Your task to perform on an android device: Add jbl charge 4 to the cart on amazon Image 0: 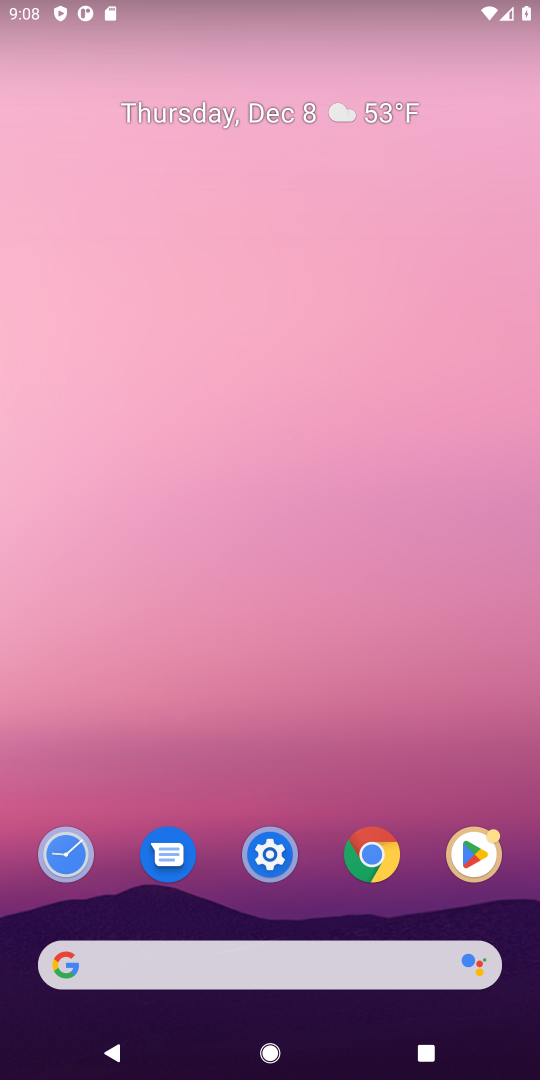
Step 0: click (95, 965)
Your task to perform on an android device: Add jbl charge 4 to the cart on amazon Image 1: 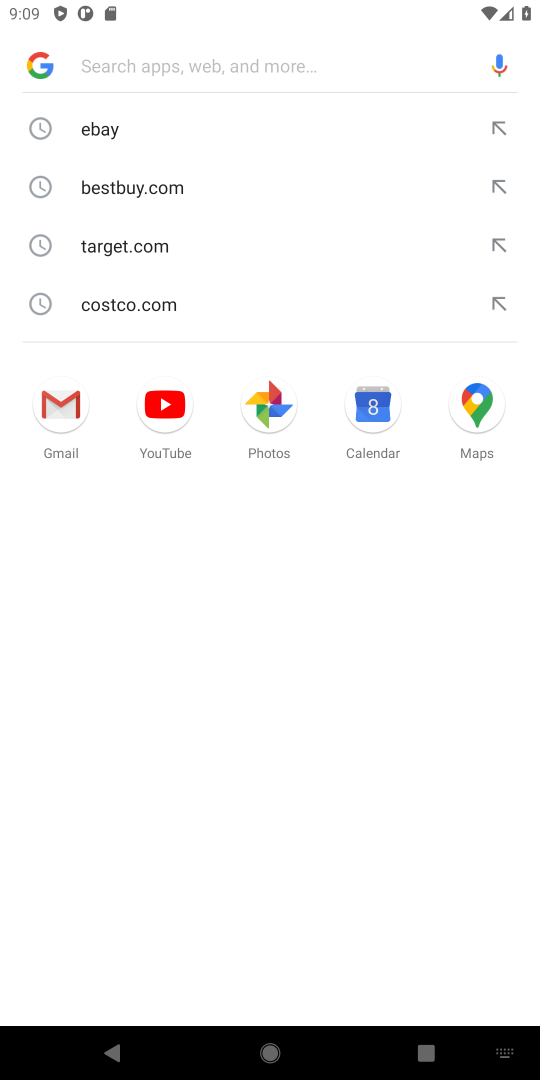
Step 1: type "amazon"
Your task to perform on an android device: Add jbl charge 4 to the cart on amazon Image 2: 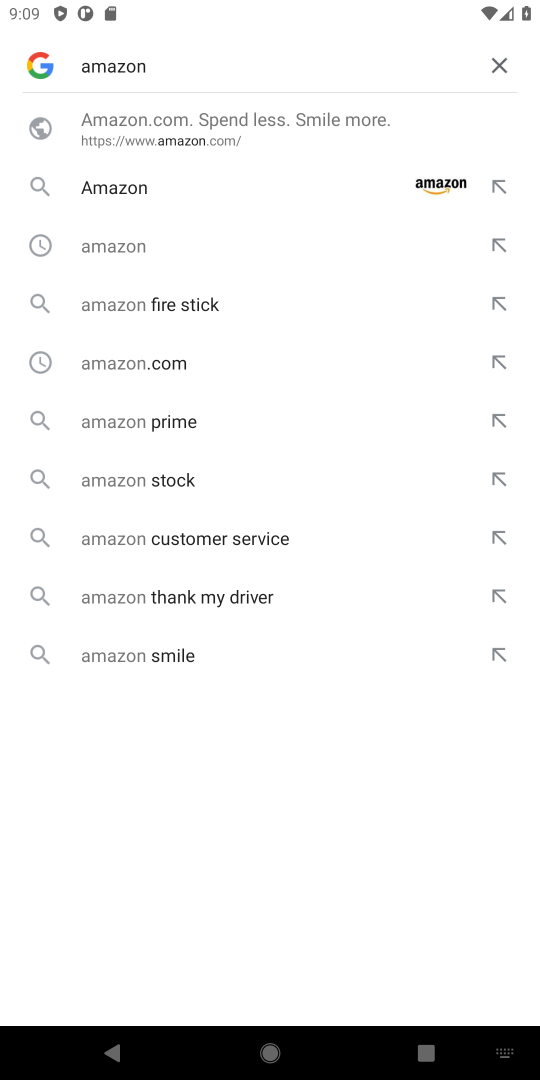
Step 2: press enter
Your task to perform on an android device: Add jbl charge 4 to the cart on amazon Image 3: 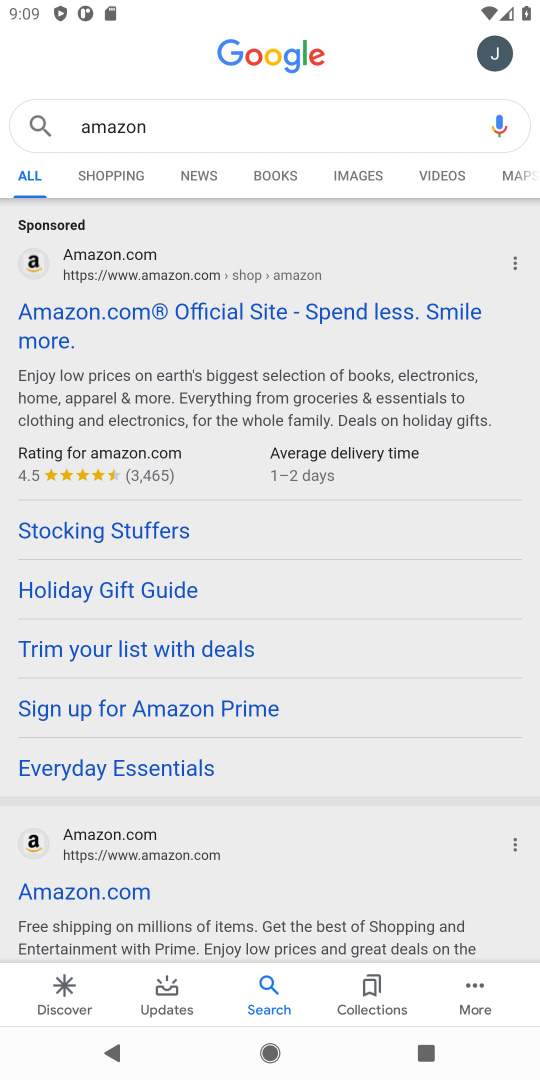
Step 3: click (165, 302)
Your task to perform on an android device: Add jbl charge 4 to the cart on amazon Image 4: 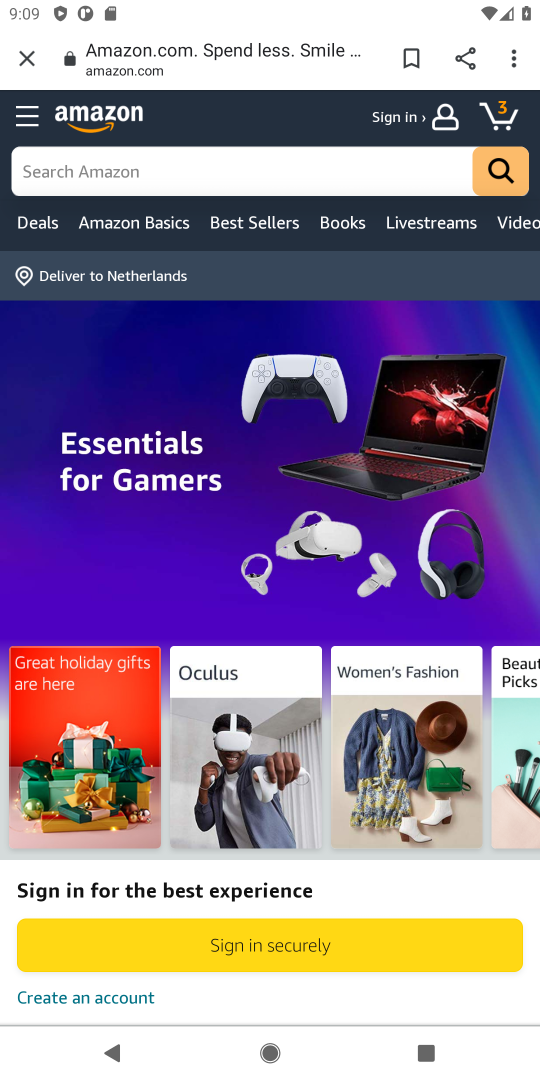
Step 4: type "jbl charge 4"
Your task to perform on an android device: Add jbl charge 4 to the cart on amazon Image 5: 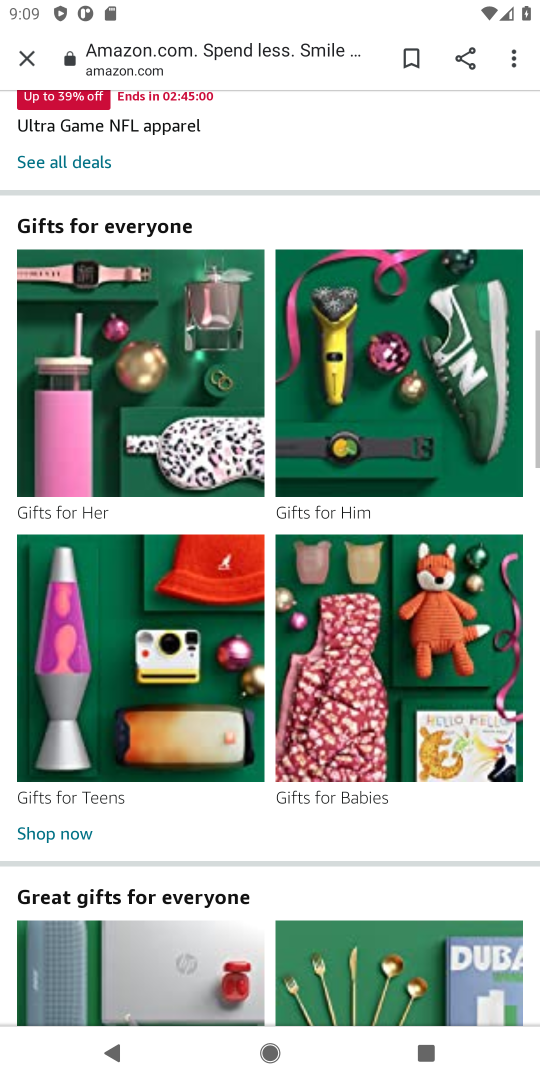
Step 5: press enter
Your task to perform on an android device: Add jbl charge 4 to the cart on amazon Image 6: 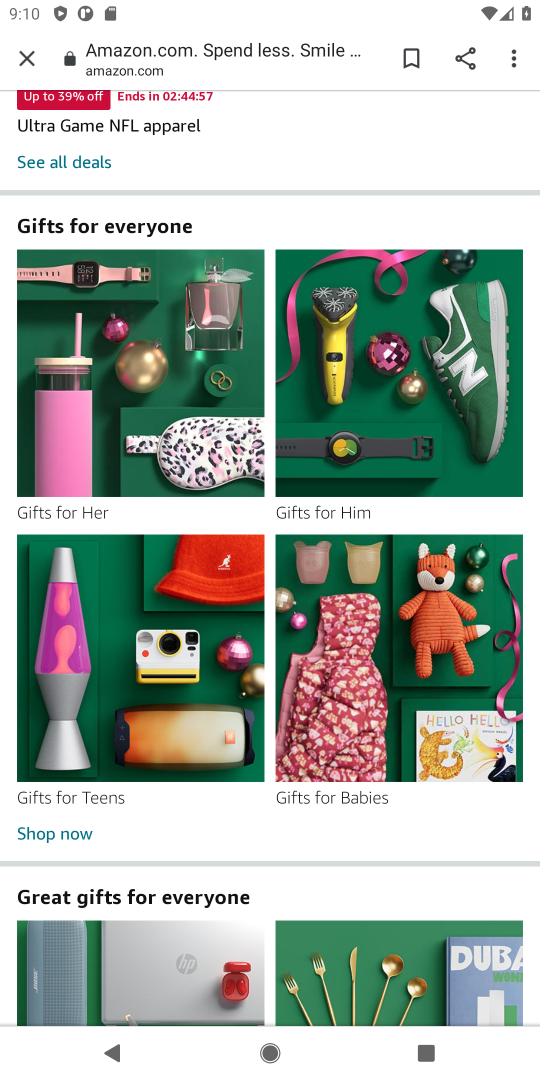
Step 6: drag from (377, 175) to (336, 879)
Your task to perform on an android device: Add jbl charge 4 to the cart on amazon Image 7: 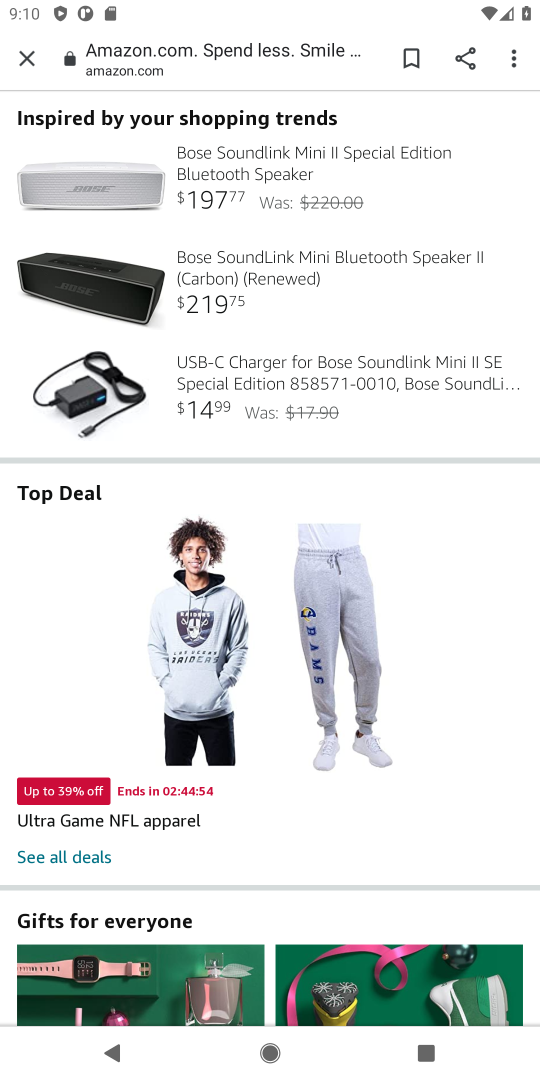
Step 7: drag from (356, 269) to (281, 923)
Your task to perform on an android device: Add jbl charge 4 to the cart on amazon Image 8: 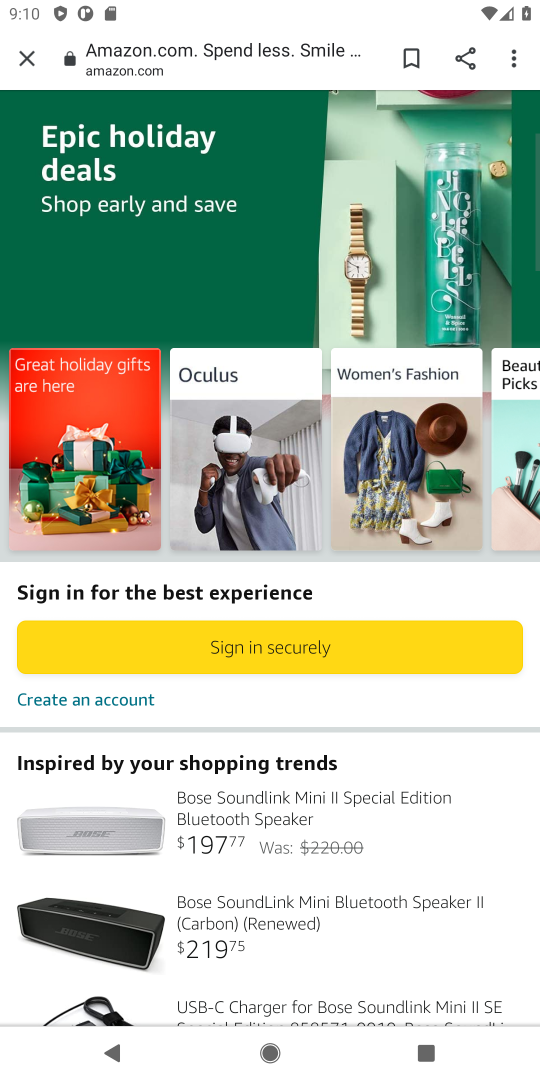
Step 8: drag from (281, 191) to (231, 834)
Your task to perform on an android device: Add jbl charge 4 to the cart on amazon Image 9: 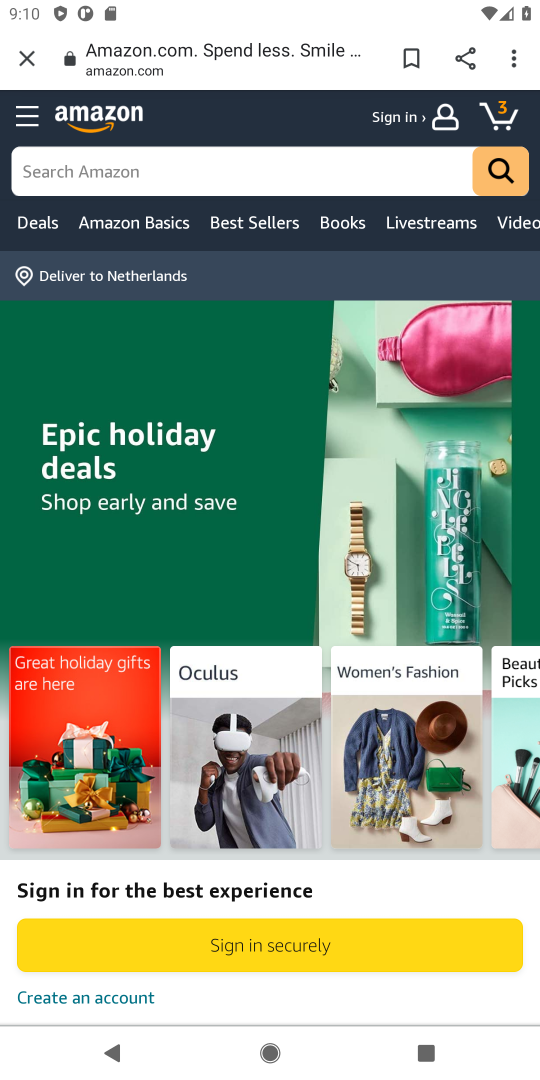
Step 9: click (109, 163)
Your task to perform on an android device: Add jbl charge 4 to the cart on amazon Image 10: 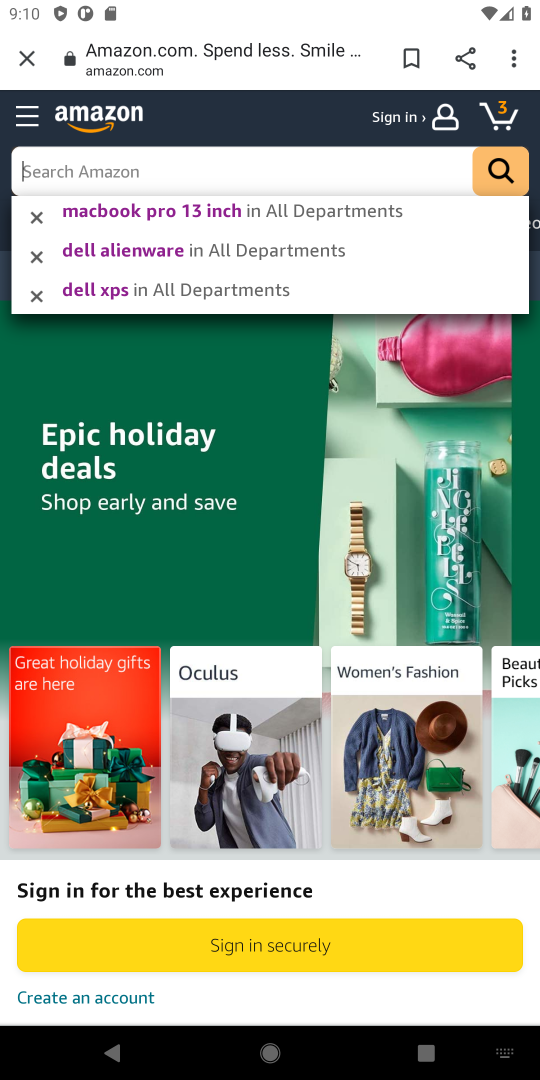
Step 10: type "jbl charge 4"
Your task to perform on an android device: Add jbl charge 4 to the cart on amazon Image 11: 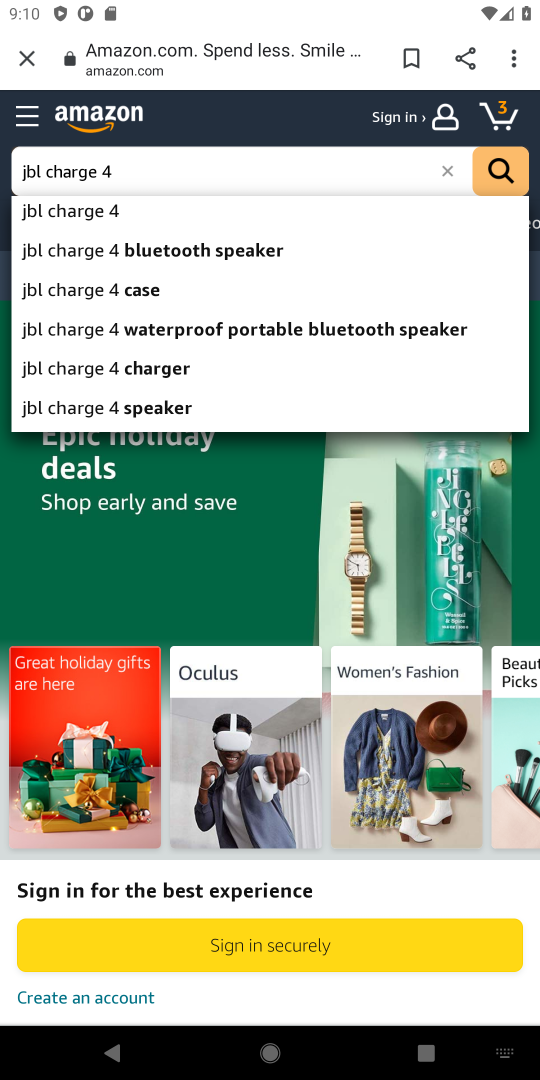
Step 11: click (500, 165)
Your task to perform on an android device: Add jbl charge 4 to the cart on amazon Image 12: 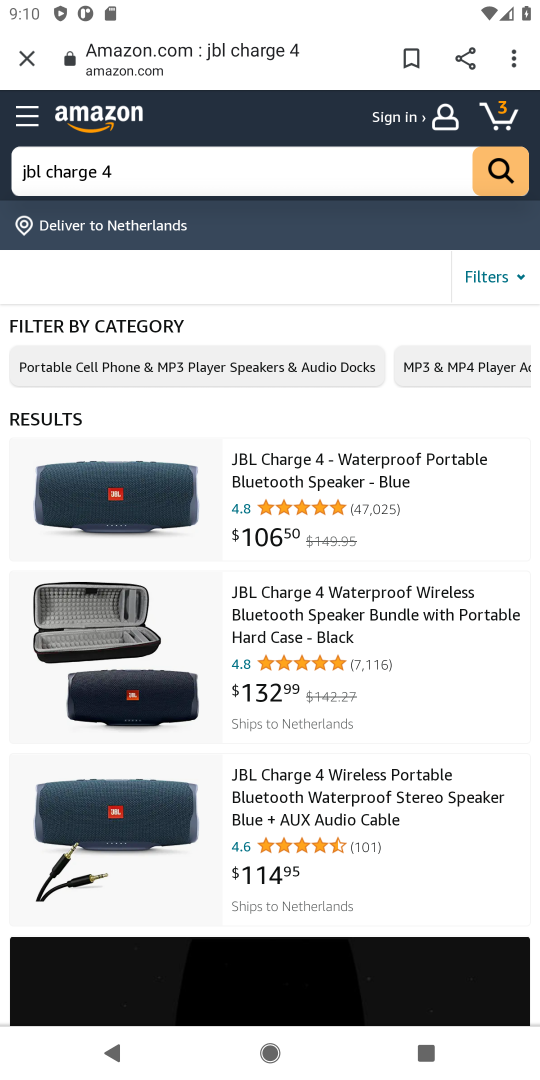
Step 12: click (308, 482)
Your task to perform on an android device: Add jbl charge 4 to the cart on amazon Image 13: 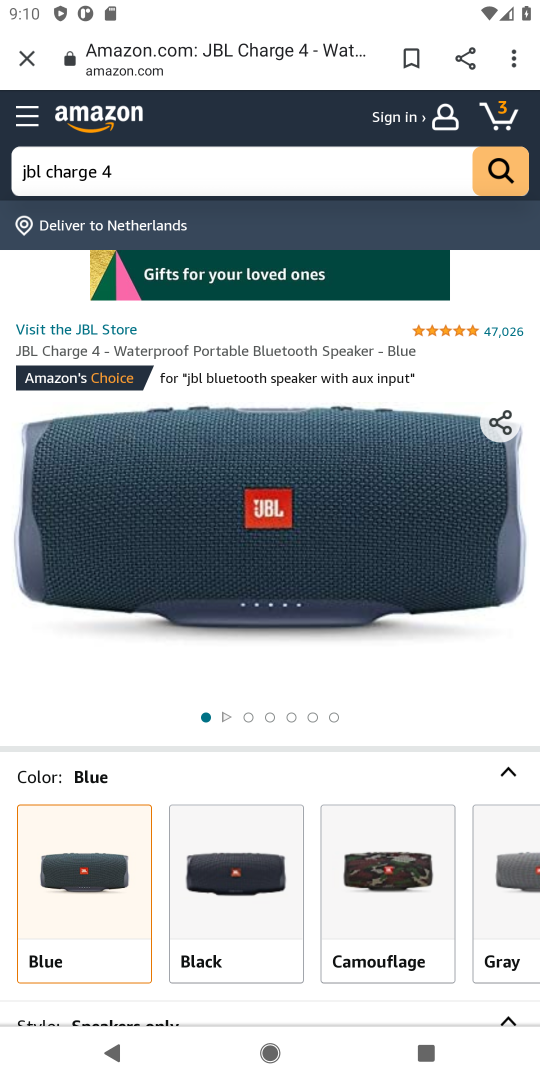
Step 13: task complete